Your task to perform on an android device: Go to notification settings Image 0: 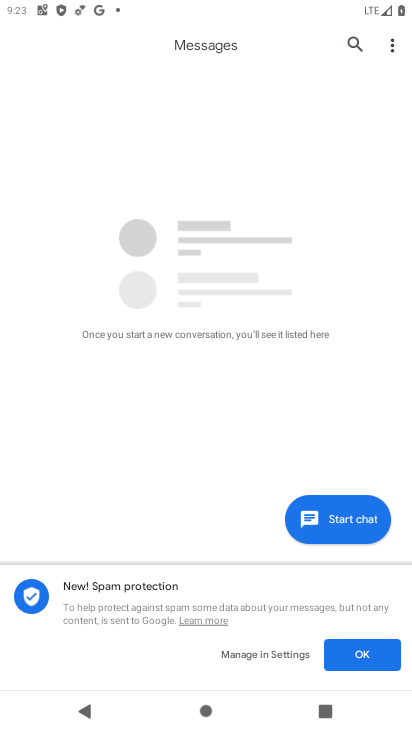
Step 0: press back button
Your task to perform on an android device: Go to notification settings Image 1: 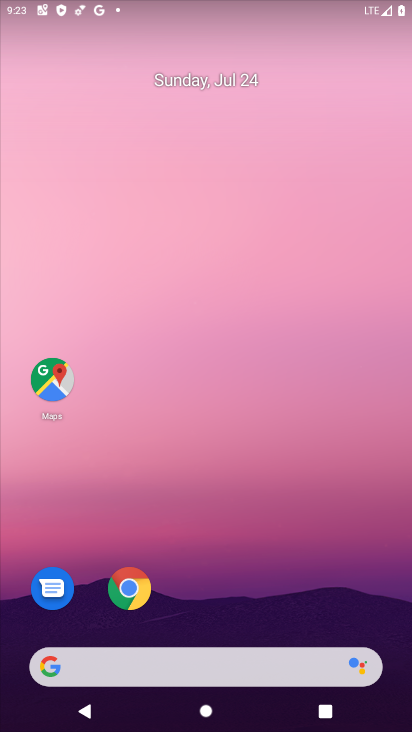
Step 1: drag from (214, 653) to (247, 116)
Your task to perform on an android device: Go to notification settings Image 2: 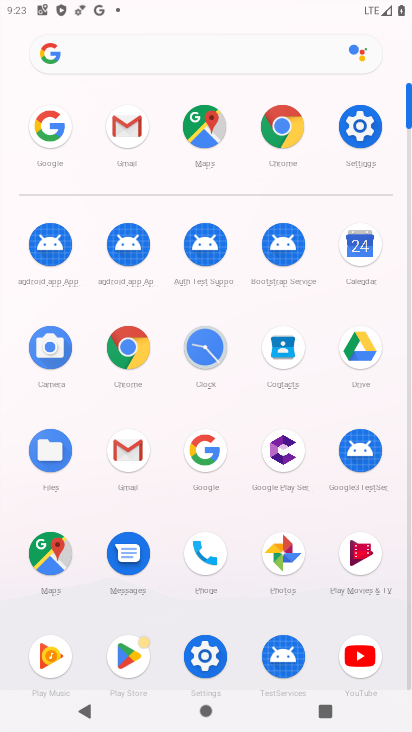
Step 2: click (381, 144)
Your task to perform on an android device: Go to notification settings Image 3: 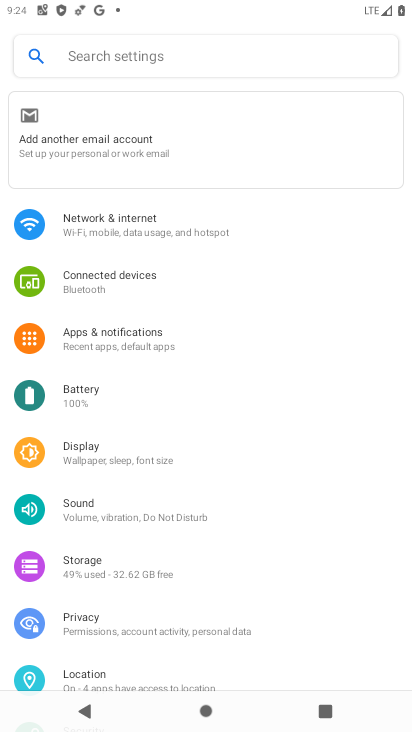
Step 3: click (78, 349)
Your task to perform on an android device: Go to notification settings Image 4: 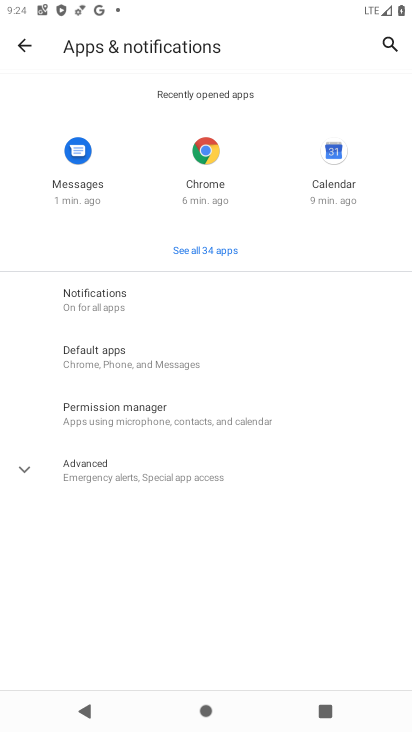
Step 4: task complete